Your task to perform on an android device: Find coffee shops on Maps Image 0: 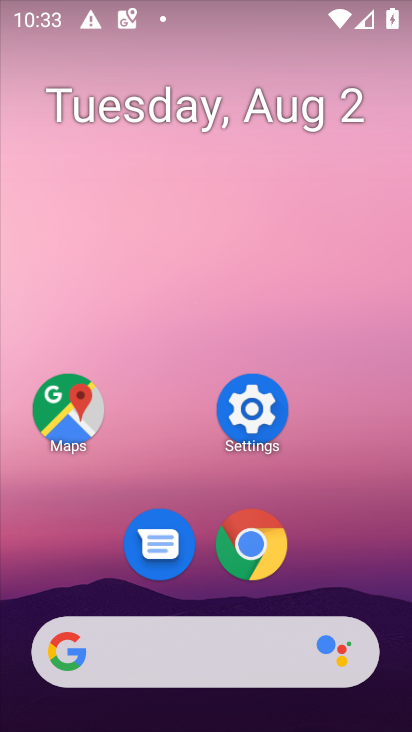
Step 0: click (92, 394)
Your task to perform on an android device: Find coffee shops on Maps Image 1: 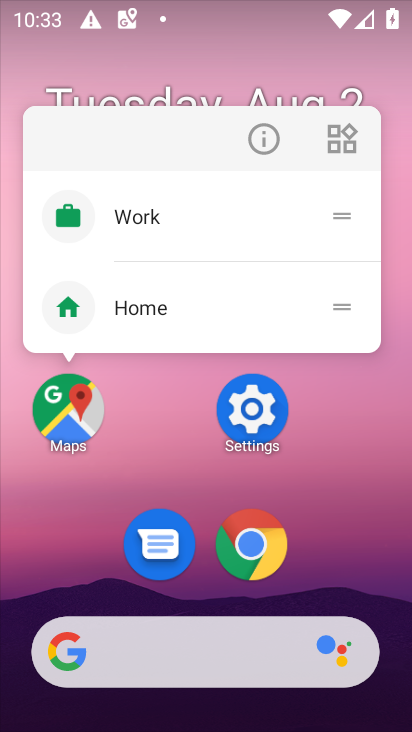
Step 1: click (70, 411)
Your task to perform on an android device: Find coffee shops on Maps Image 2: 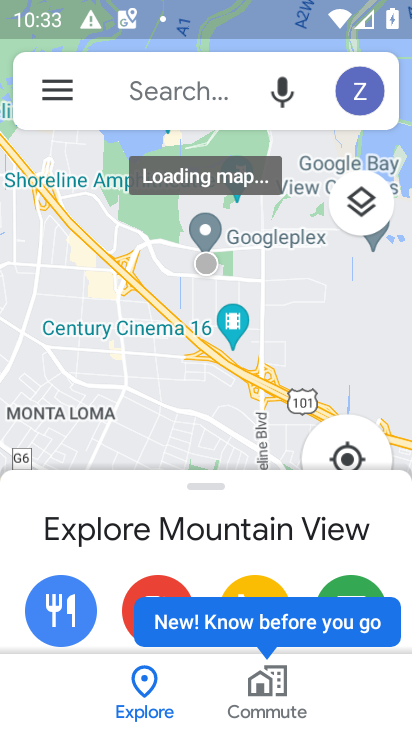
Step 2: click (137, 81)
Your task to perform on an android device: Find coffee shops on Maps Image 3: 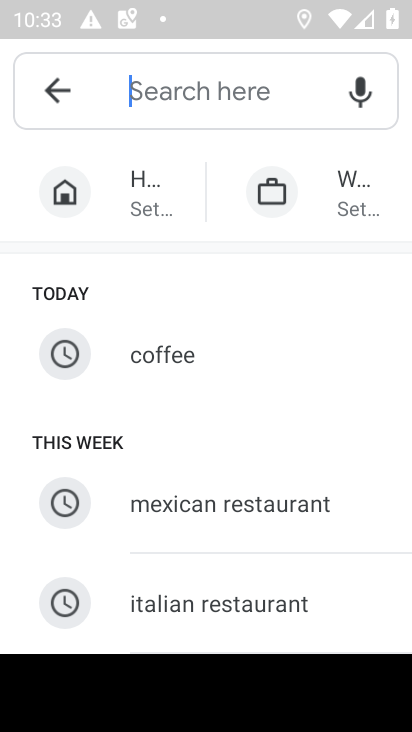
Step 3: click (175, 361)
Your task to perform on an android device: Find coffee shops on Maps Image 4: 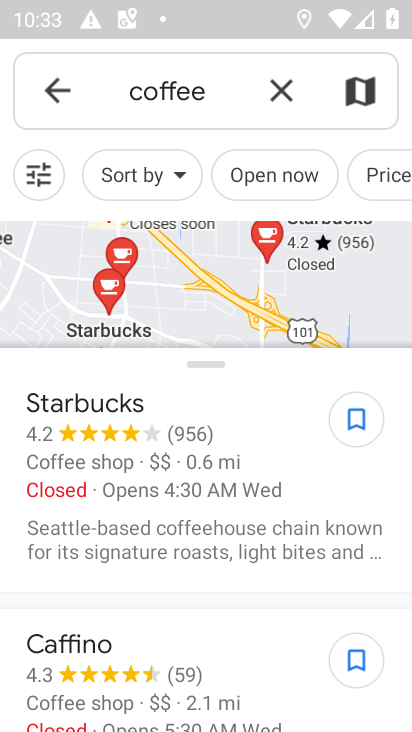
Step 4: task complete